Your task to perform on an android device: visit the assistant section in the google photos Image 0: 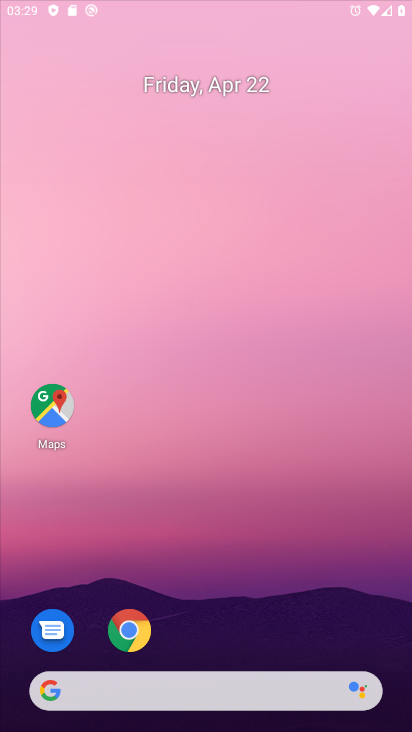
Step 0: click (33, 401)
Your task to perform on an android device: visit the assistant section in the google photos Image 1: 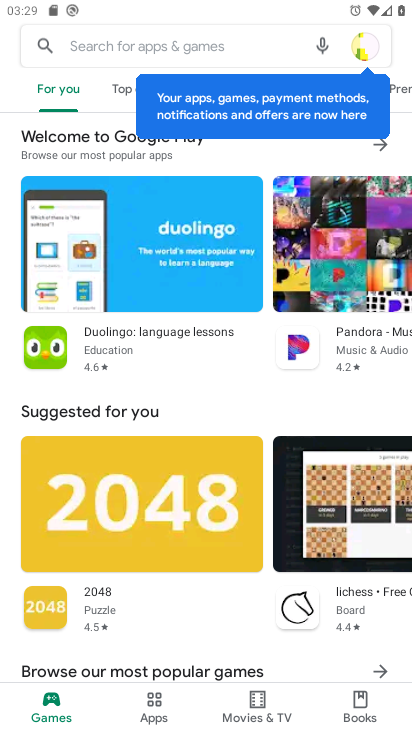
Step 1: press home button
Your task to perform on an android device: visit the assistant section in the google photos Image 2: 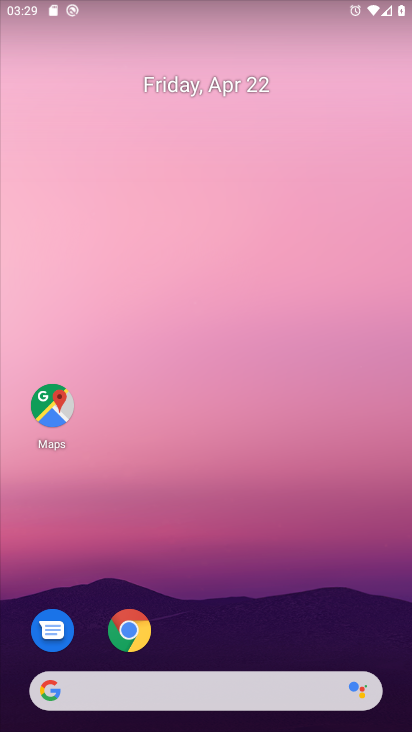
Step 2: drag from (192, 609) to (221, 20)
Your task to perform on an android device: visit the assistant section in the google photos Image 3: 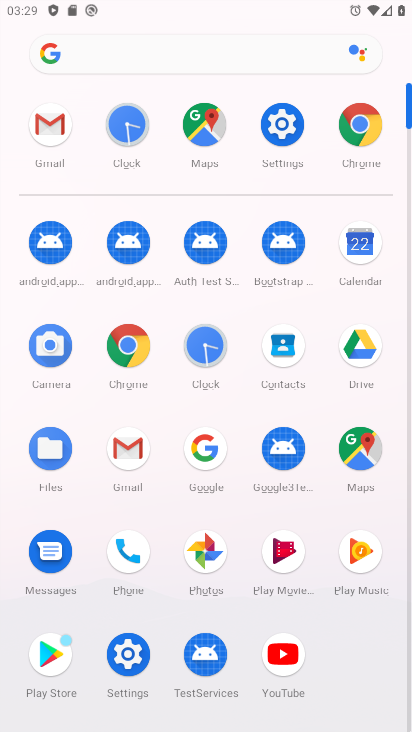
Step 3: click (216, 565)
Your task to perform on an android device: visit the assistant section in the google photos Image 4: 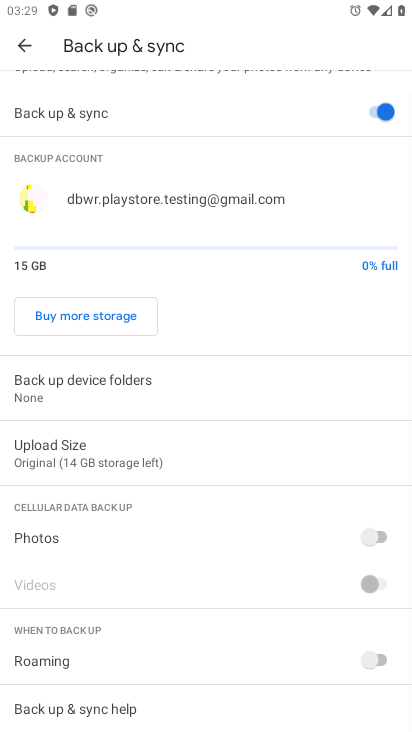
Step 4: click (13, 40)
Your task to perform on an android device: visit the assistant section in the google photos Image 5: 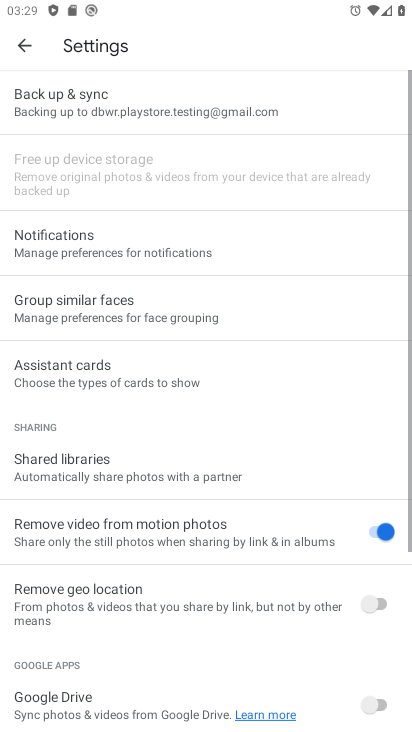
Step 5: click (24, 41)
Your task to perform on an android device: visit the assistant section in the google photos Image 6: 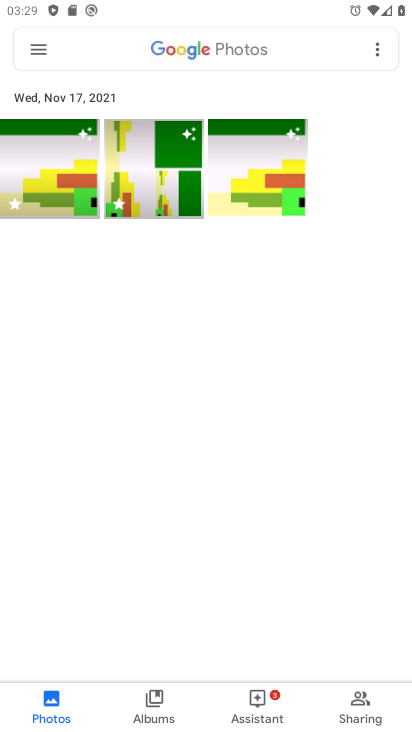
Step 6: click (251, 709)
Your task to perform on an android device: visit the assistant section in the google photos Image 7: 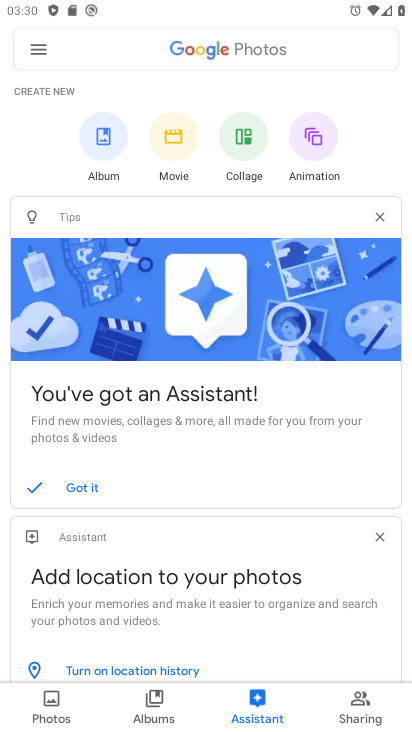
Step 7: task complete